Your task to perform on an android device: Go to calendar. Show me events next week Image 0: 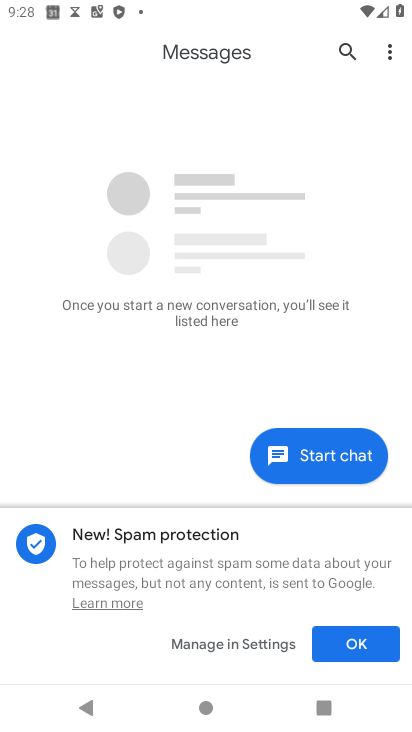
Step 0: press home button
Your task to perform on an android device: Go to calendar. Show me events next week Image 1: 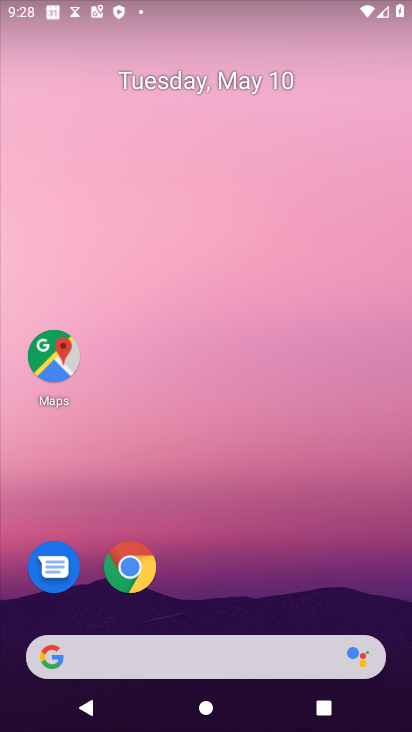
Step 1: drag from (37, 595) to (277, 116)
Your task to perform on an android device: Go to calendar. Show me events next week Image 2: 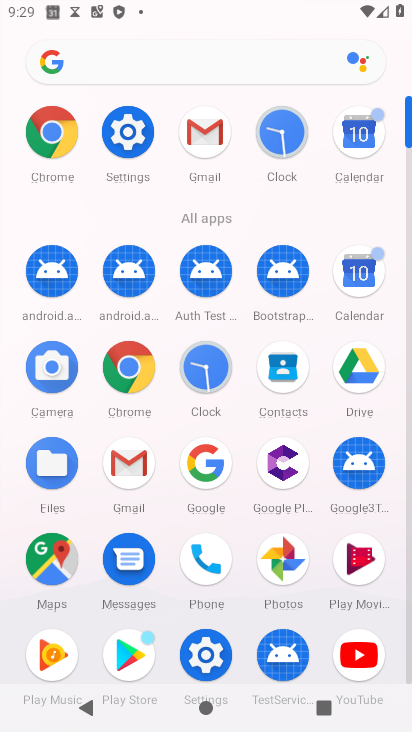
Step 2: click (354, 136)
Your task to perform on an android device: Go to calendar. Show me events next week Image 3: 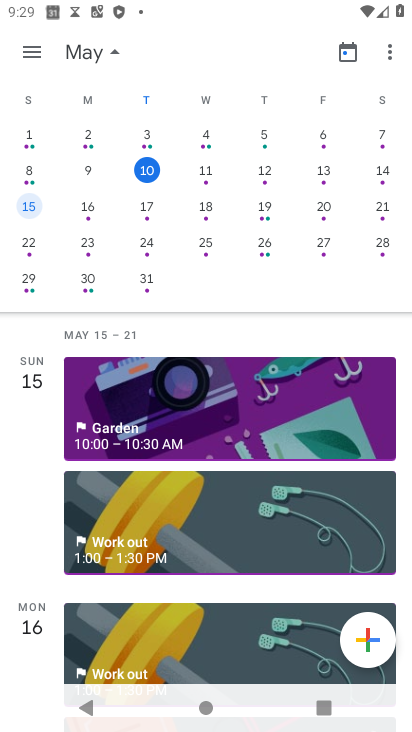
Step 3: click (212, 174)
Your task to perform on an android device: Go to calendar. Show me events next week Image 4: 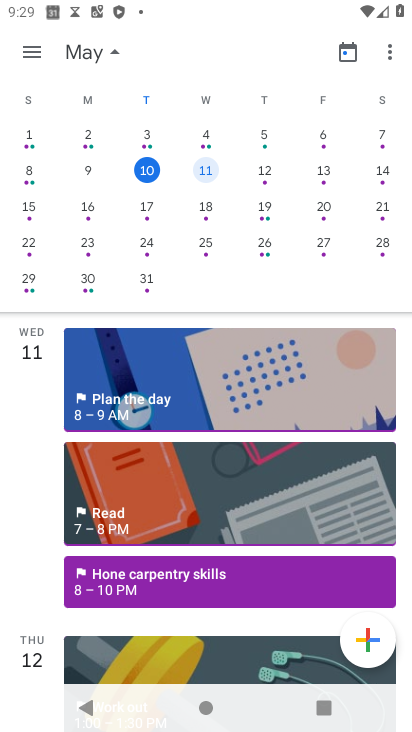
Step 4: click (83, 220)
Your task to perform on an android device: Go to calendar. Show me events next week Image 5: 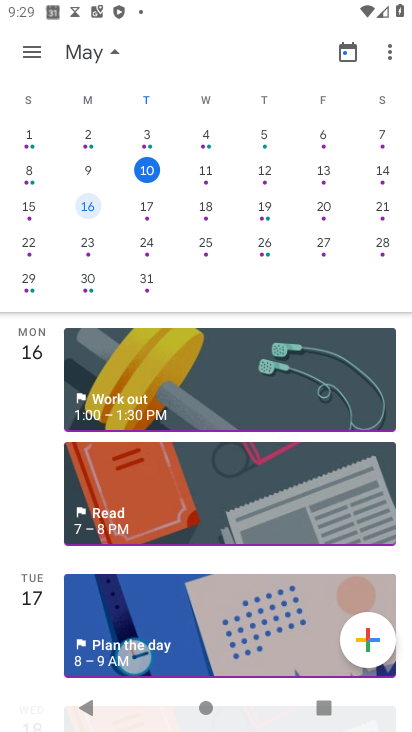
Step 5: click (136, 213)
Your task to perform on an android device: Go to calendar. Show me events next week Image 6: 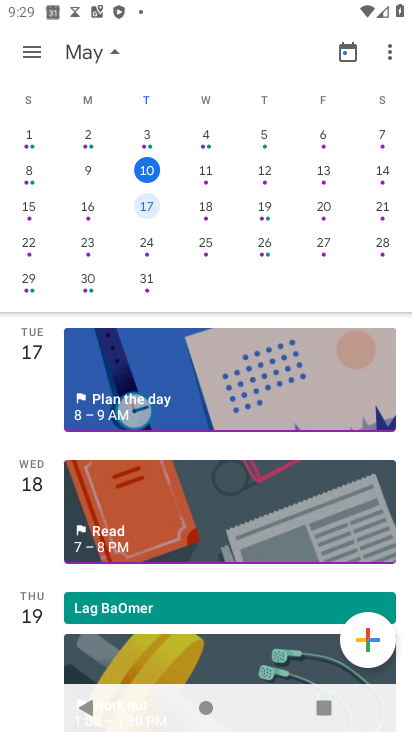
Step 6: click (201, 204)
Your task to perform on an android device: Go to calendar. Show me events next week Image 7: 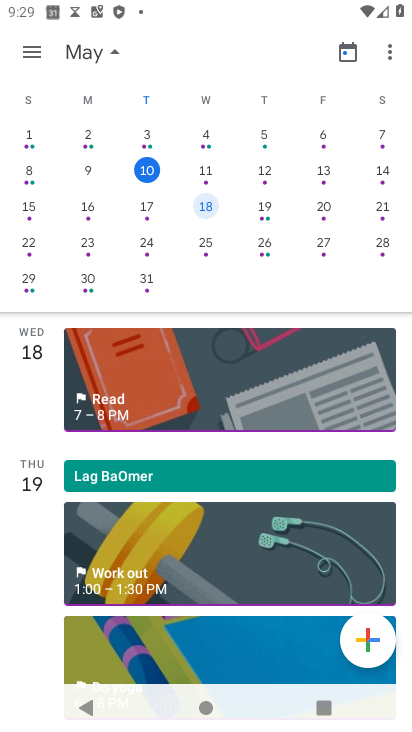
Step 7: click (253, 208)
Your task to perform on an android device: Go to calendar. Show me events next week Image 8: 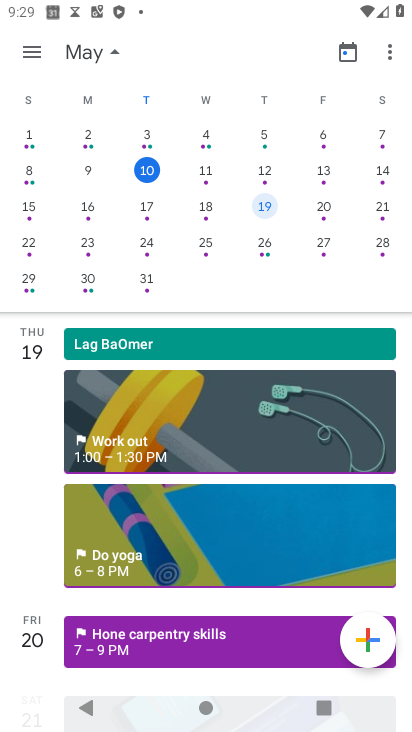
Step 8: click (324, 209)
Your task to perform on an android device: Go to calendar. Show me events next week Image 9: 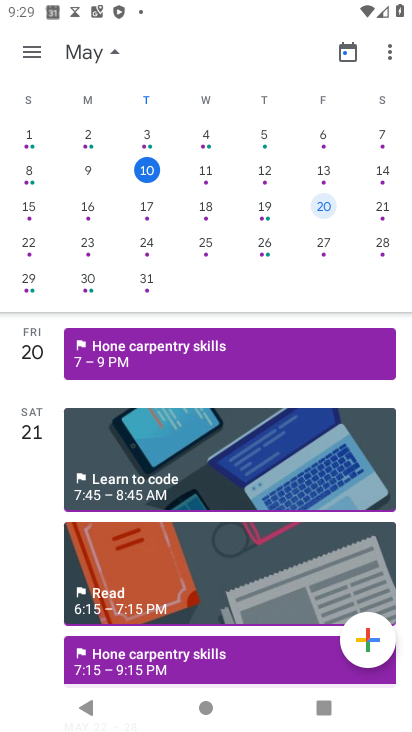
Step 9: task complete